Your task to perform on an android device: open a bookmark in the chrome app Image 0: 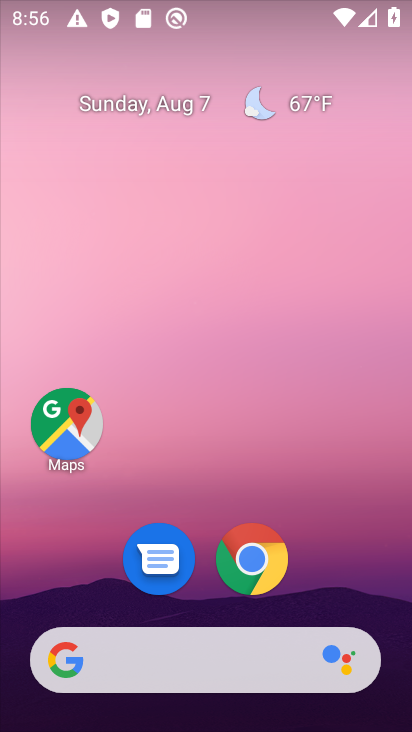
Step 0: drag from (261, 660) to (241, 89)
Your task to perform on an android device: open a bookmark in the chrome app Image 1: 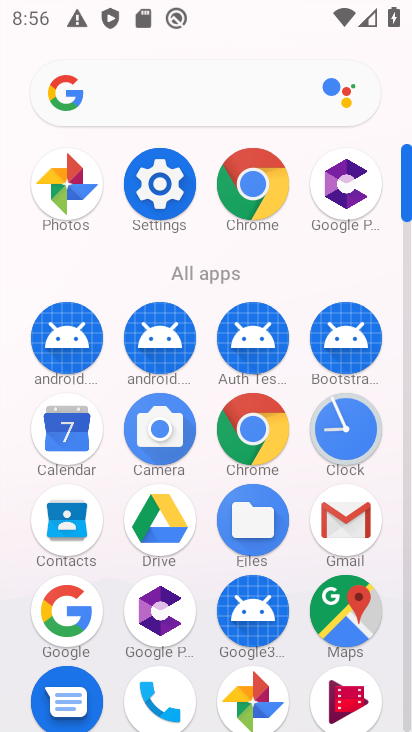
Step 1: click (258, 438)
Your task to perform on an android device: open a bookmark in the chrome app Image 2: 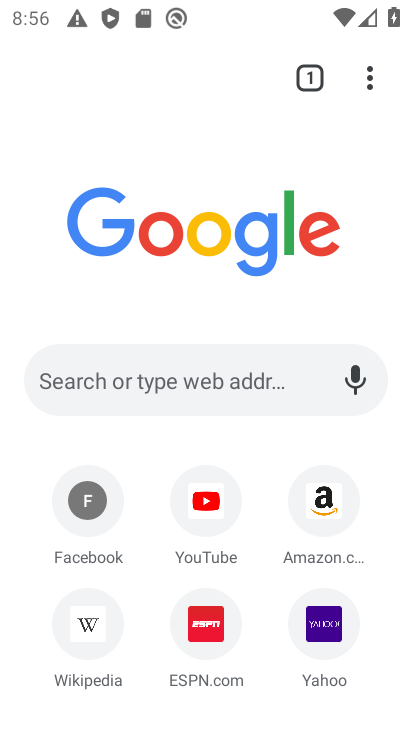
Step 2: click (362, 74)
Your task to perform on an android device: open a bookmark in the chrome app Image 3: 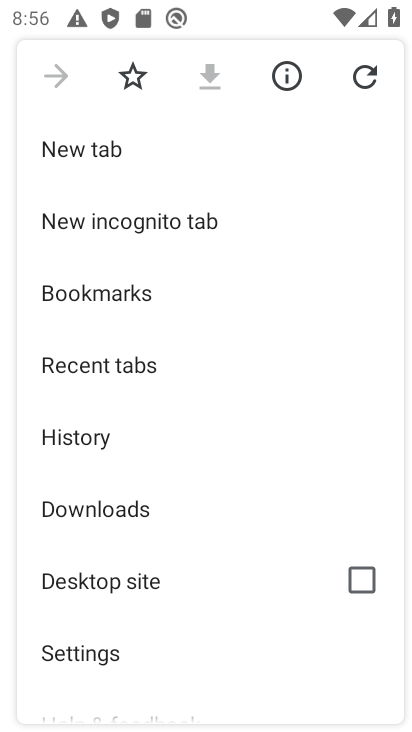
Step 3: click (188, 291)
Your task to perform on an android device: open a bookmark in the chrome app Image 4: 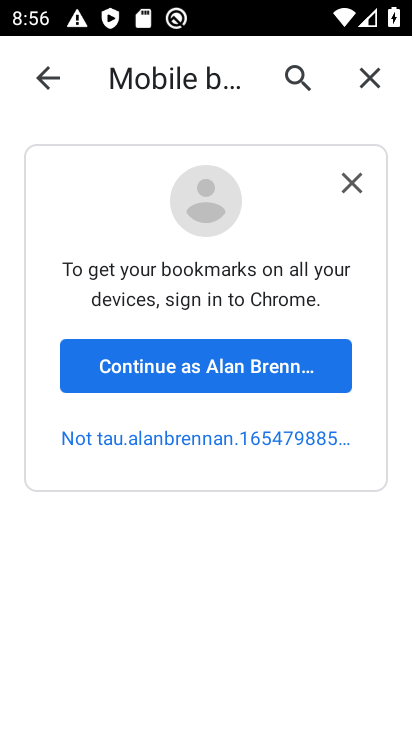
Step 4: task complete